Your task to perform on an android device: uninstall "DuckDuckGo Privacy Browser" Image 0: 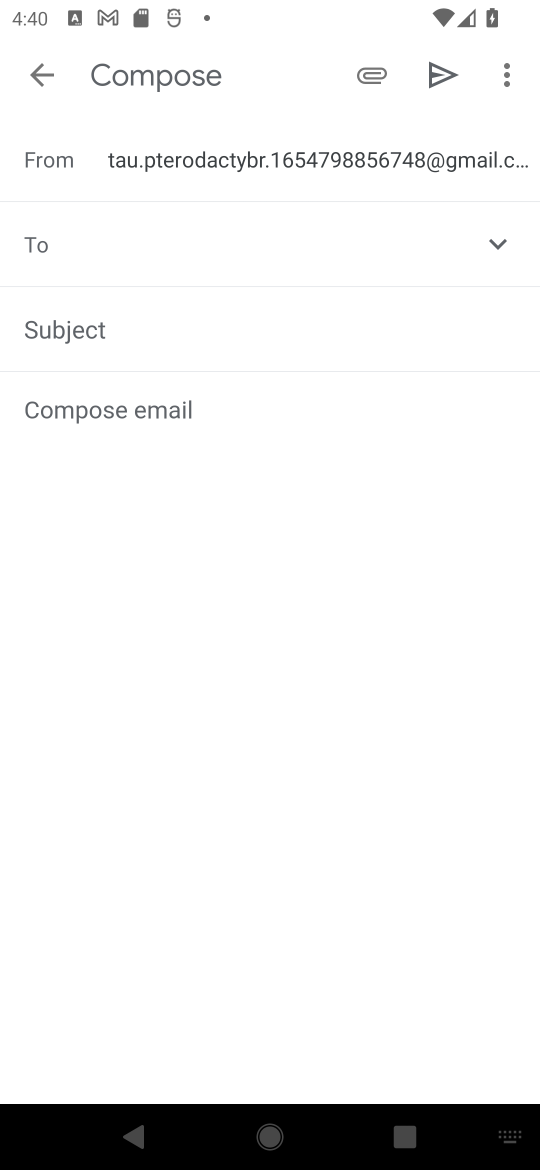
Step 0: press home button
Your task to perform on an android device: uninstall "DuckDuckGo Privacy Browser" Image 1: 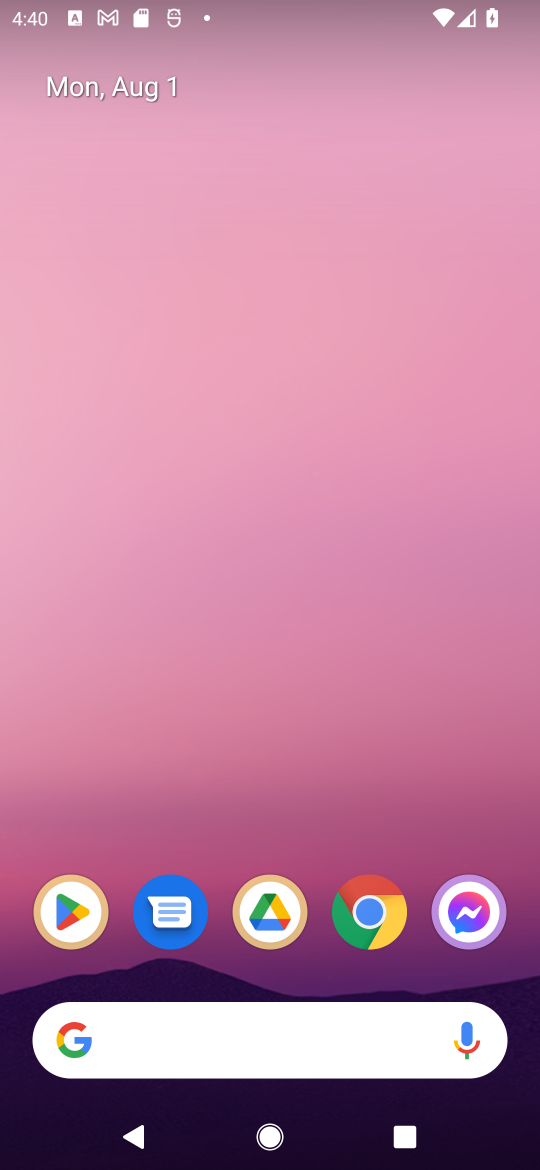
Step 1: click (49, 905)
Your task to perform on an android device: uninstall "DuckDuckGo Privacy Browser" Image 2: 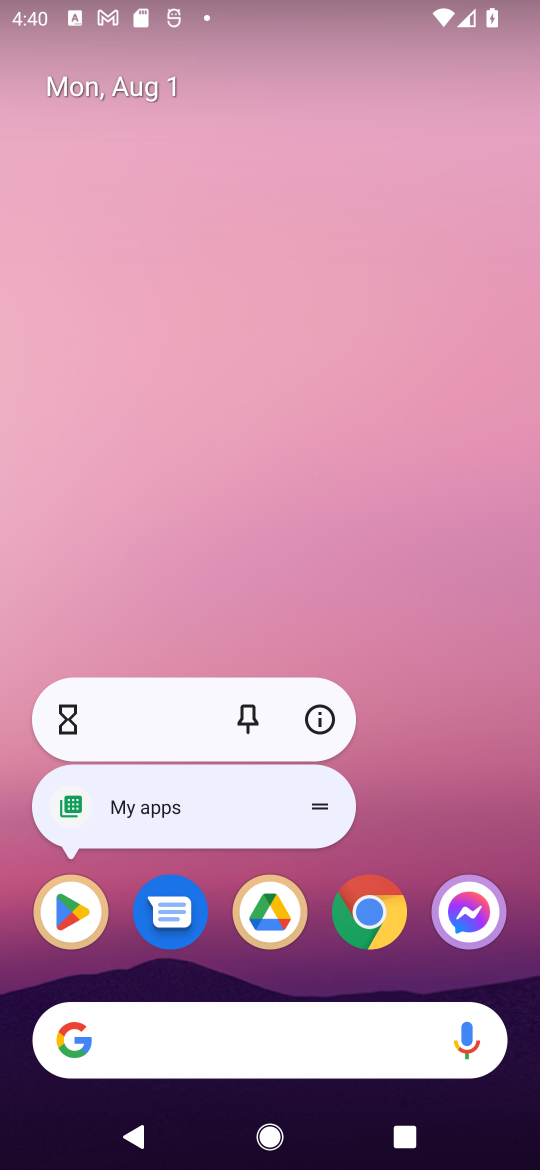
Step 2: click (55, 914)
Your task to perform on an android device: uninstall "DuckDuckGo Privacy Browser" Image 3: 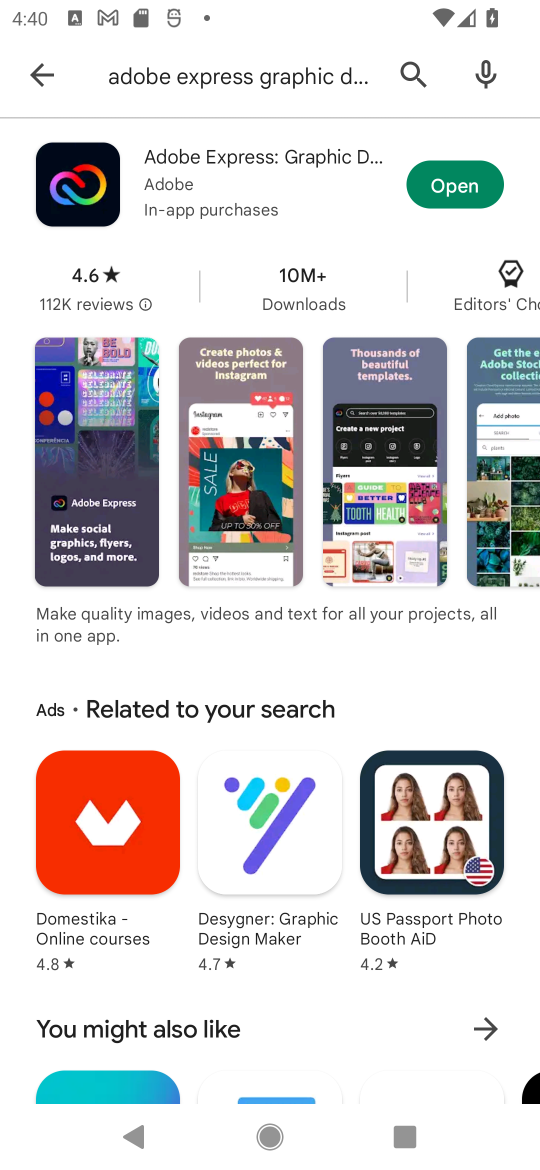
Step 3: click (418, 68)
Your task to perform on an android device: uninstall "DuckDuckGo Privacy Browser" Image 4: 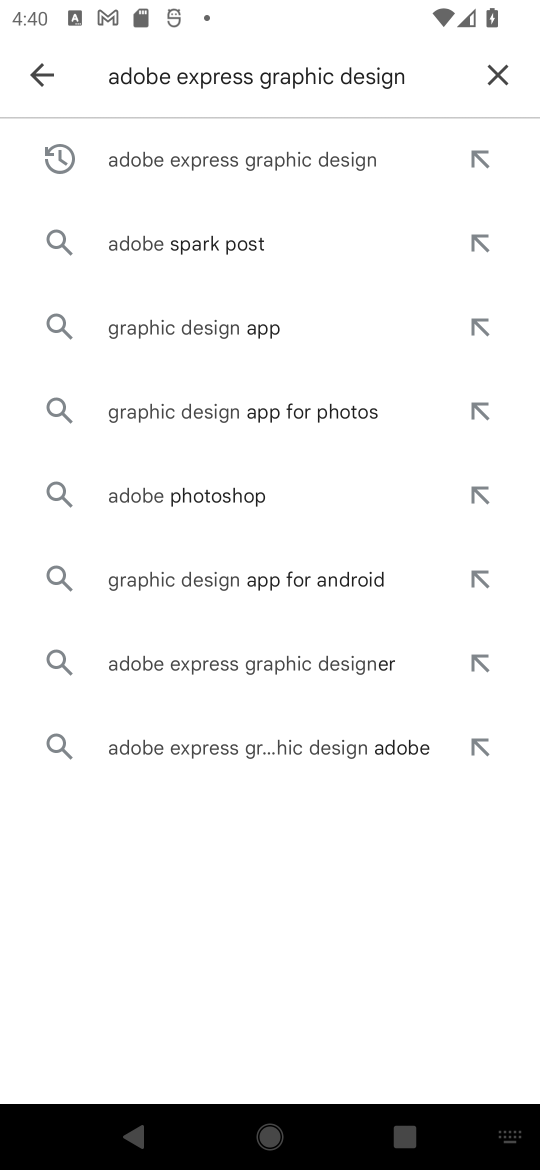
Step 4: click (486, 88)
Your task to perform on an android device: uninstall "DuckDuckGo Privacy Browser" Image 5: 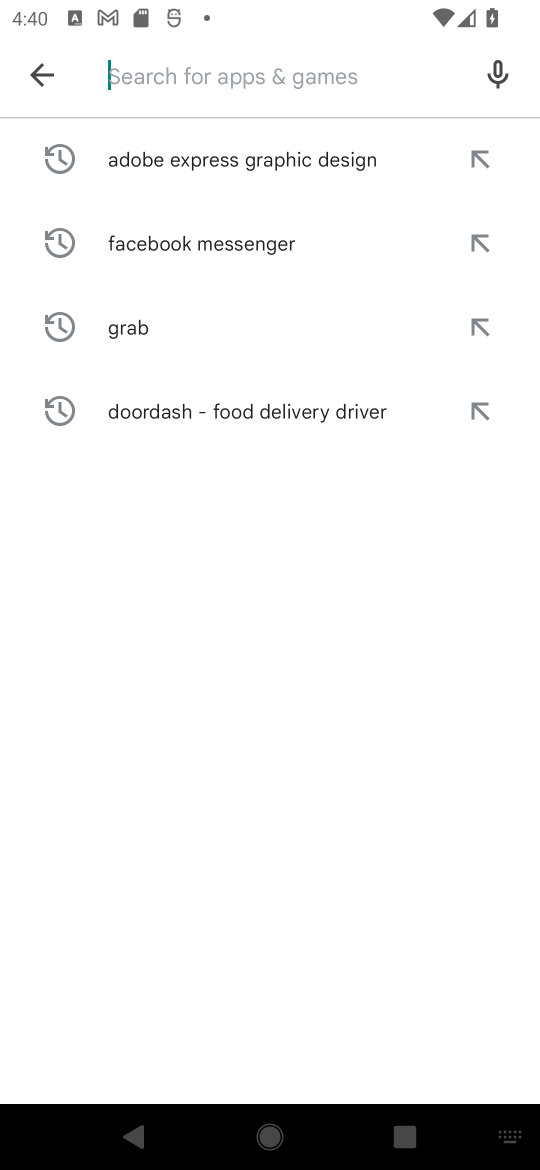
Step 5: type "DuckDuckGo Privacy Browser"
Your task to perform on an android device: uninstall "DuckDuckGo Privacy Browser" Image 6: 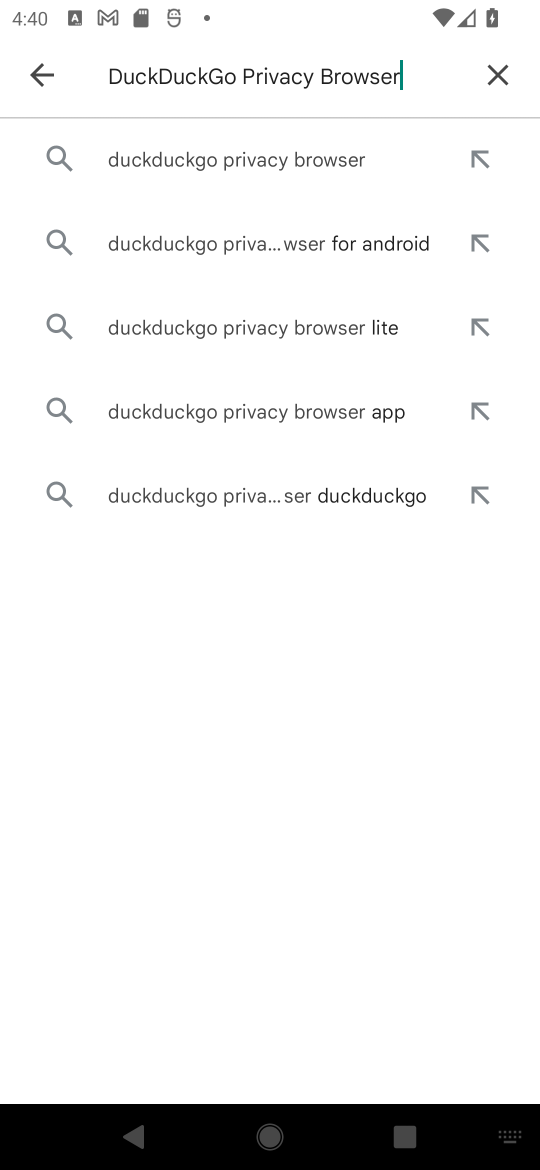
Step 6: click (264, 166)
Your task to perform on an android device: uninstall "DuckDuckGo Privacy Browser" Image 7: 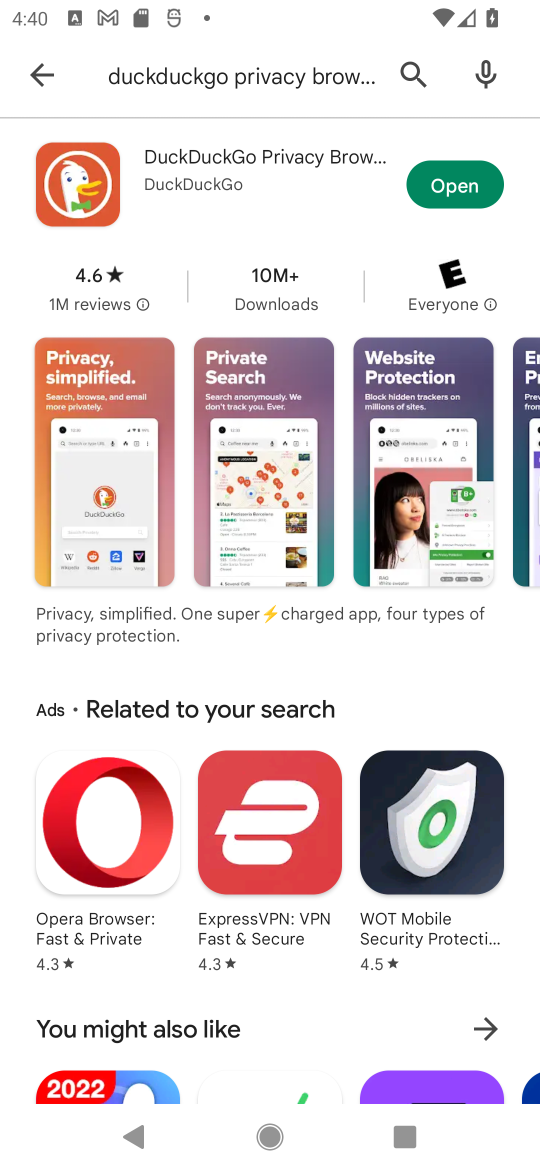
Step 7: click (63, 176)
Your task to perform on an android device: uninstall "DuckDuckGo Privacy Browser" Image 8: 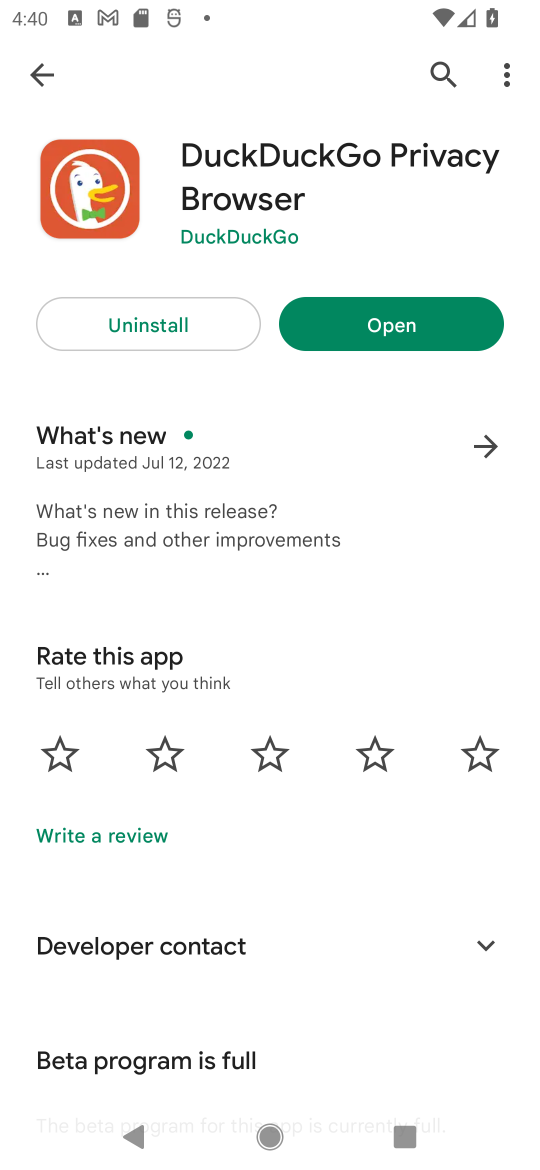
Step 8: click (124, 325)
Your task to perform on an android device: uninstall "DuckDuckGo Privacy Browser" Image 9: 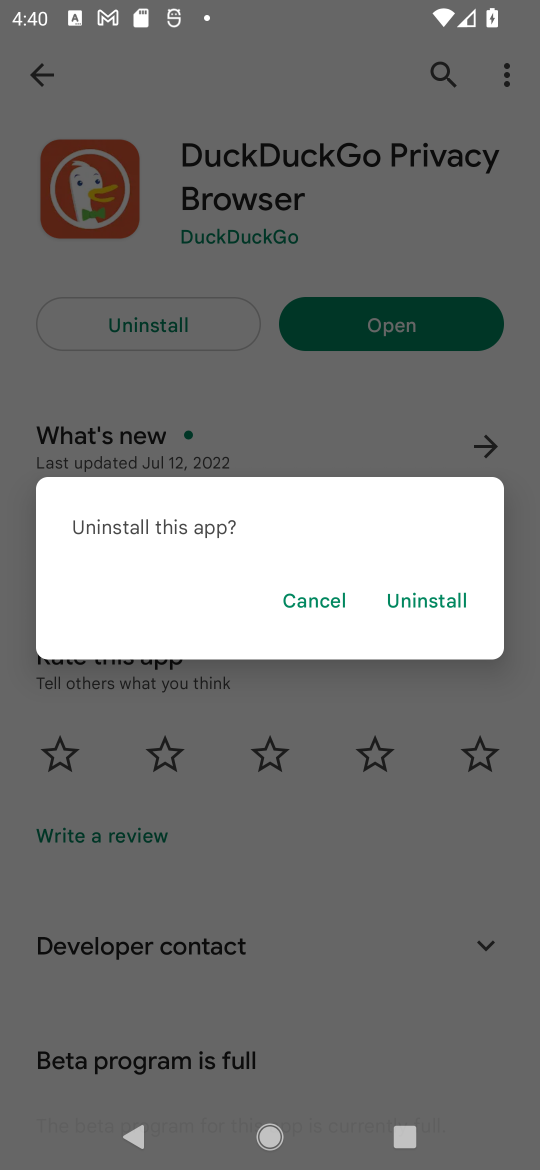
Step 9: click (453, 601)
Your task to perform on an android device: uninstall "DuckDuckGo Privacy Browser" Image 10: 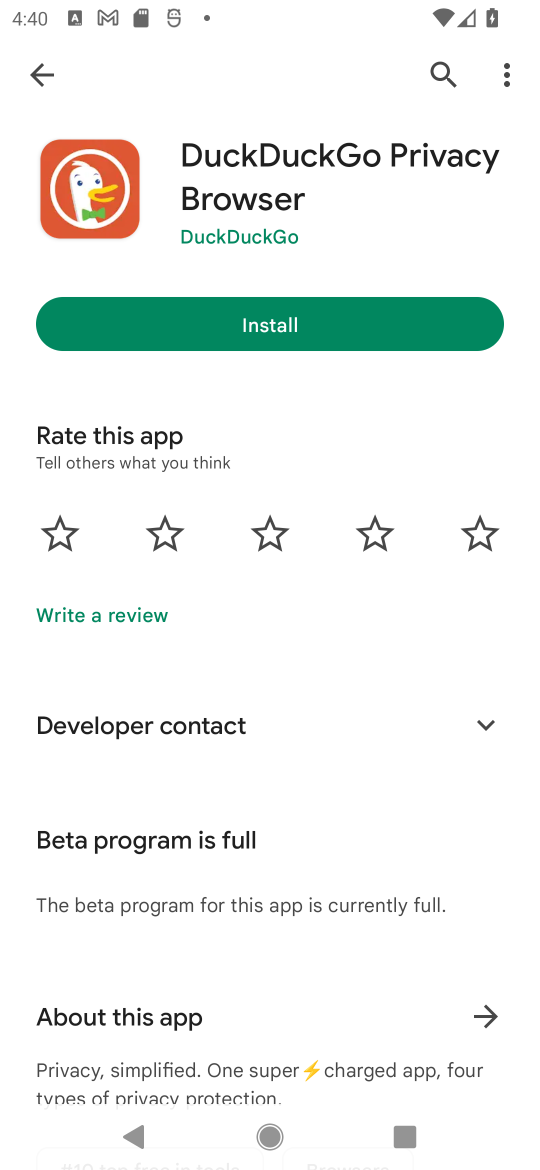
Step 10: task complete